Your task to perform on an android device: add a contact in the contacts app Image 0: 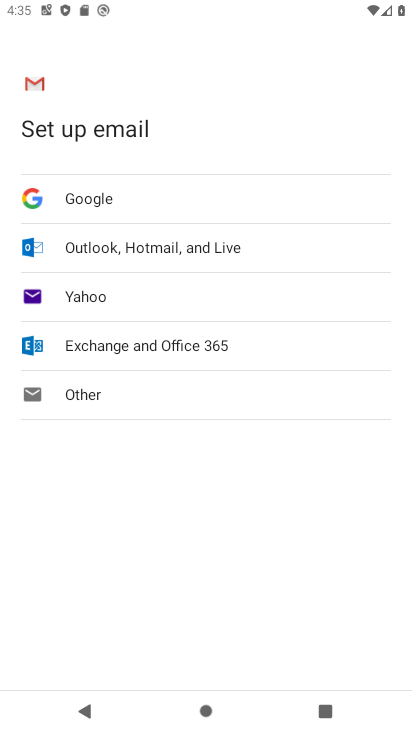
Step 0: press home button
Your task to perform on an android device: add a contact in the contacts app Image 1: 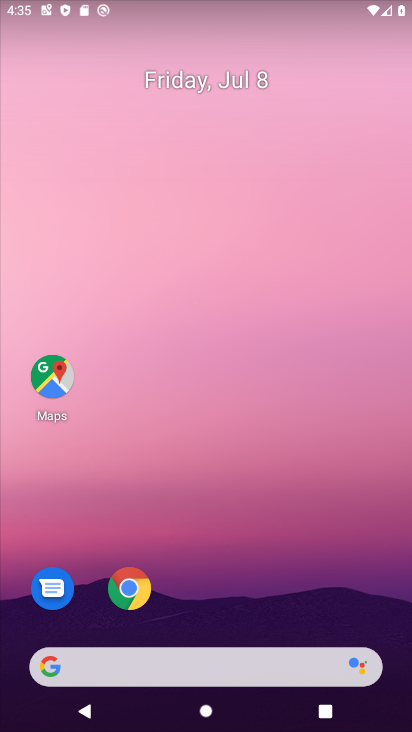
Step 1: drag from (177, 624) to (342, 2)
Your task to perform on an android device: add a contact in the contacts app Image 2: 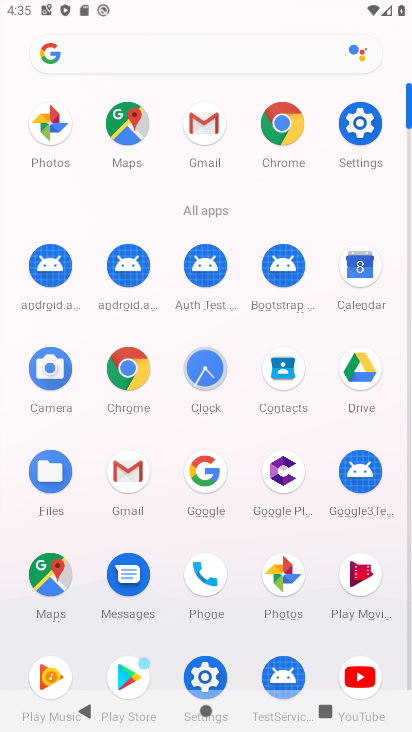
Step 2: click (282, 384)
Your task to perform on an android device: add a contact in the contacts app Image 3: 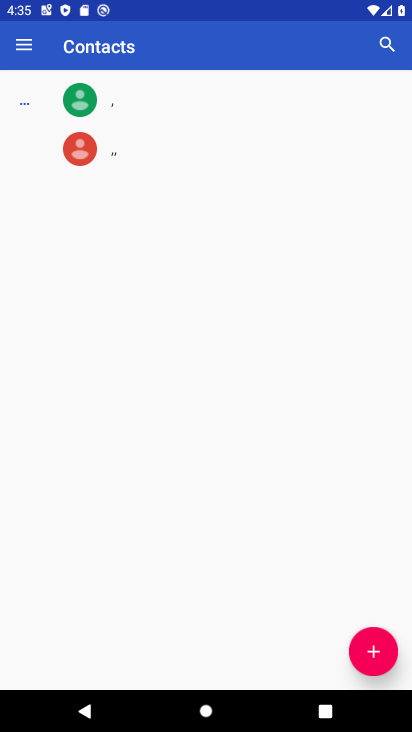
Step 3: click (384, 650)
Your task to perform on an android device: add a contact in the contacts app Image 4: 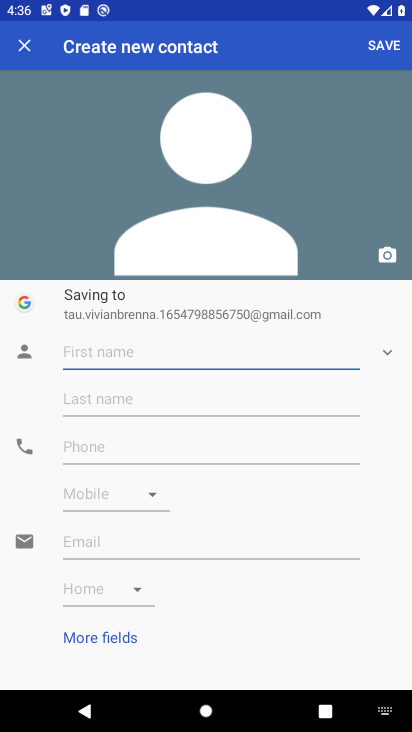
Step 4: type "dwell"
Your task to perform on an android device: add a contact in the contacts app Image 5: 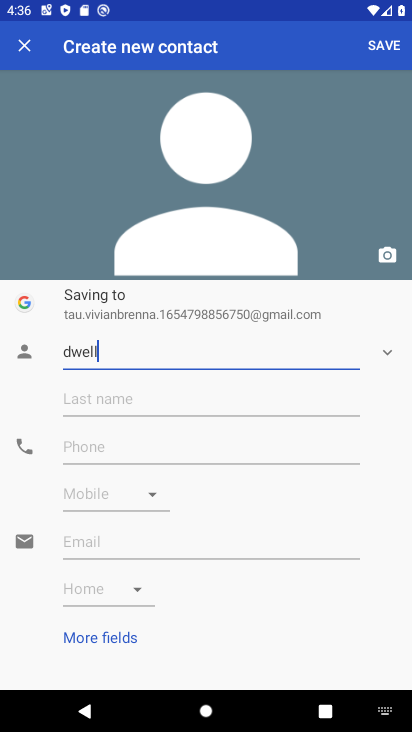
Step 5: click (374, 44)
Your task to perform on an android device: add a contact in the contacts app Image 6: 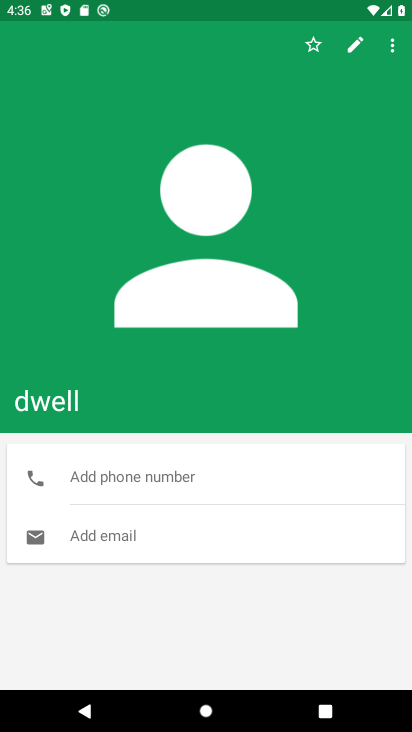
Step 6: task complete